Your task to perform on an android device: turn off airplane mode Image 0: 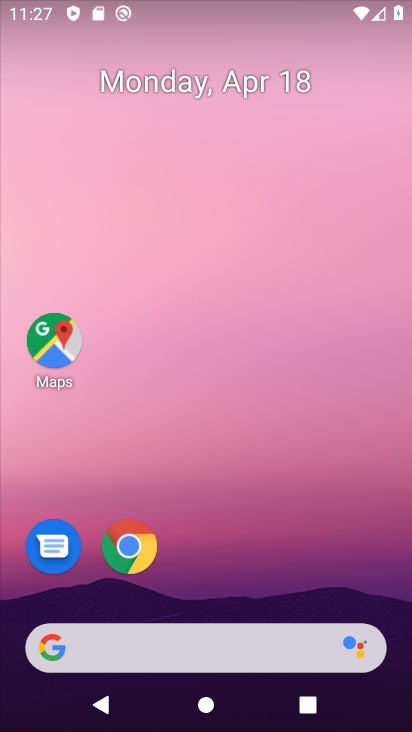
Step 0: drag from (210, 592) to (213, 175)
Your task to perform on an android device: turn off airplane mode Image 1: 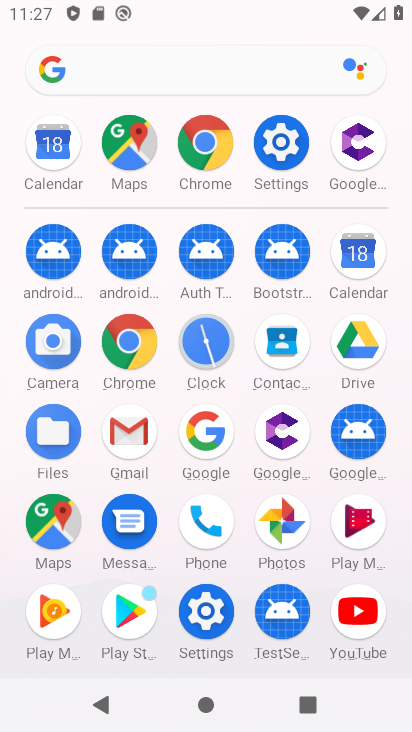
Step 1: click (284, 148)
Your task to perform on an android device: turn off airplane mode Image 2: 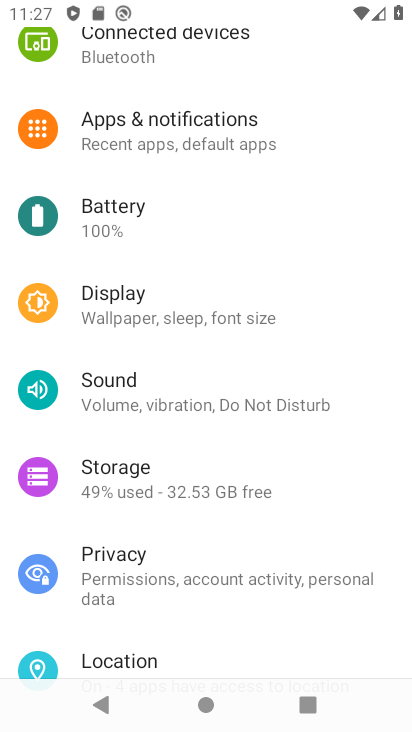
Step 2: drag from (236, 144) to (405, 327)
Your task to perform on an android device: turn off airplane mode Image 3: 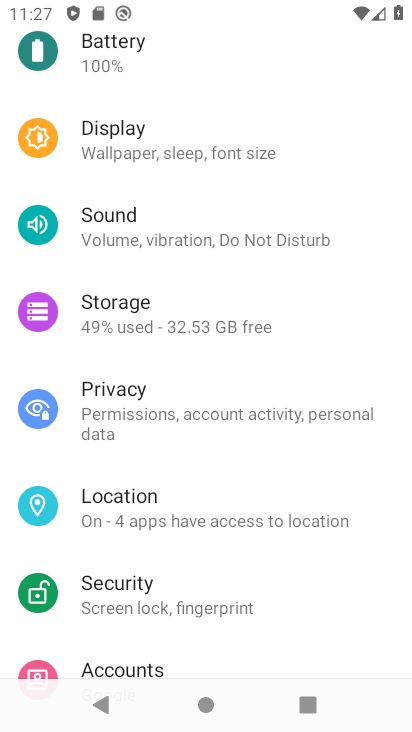
Step 3: drag from (263, 207) to (352, 492)
Your task to perform on an android device: turn off airplane mode Image 4: 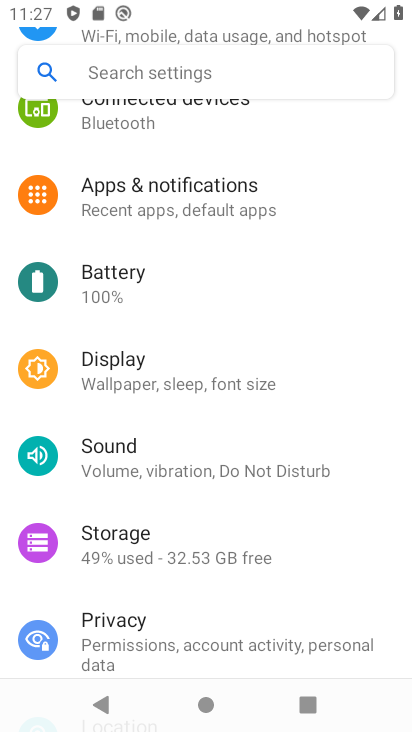
Step 4: drag from (221, 136) to (373, 656)
Your task to perform on an android device: turn off airplane mode Image 5: 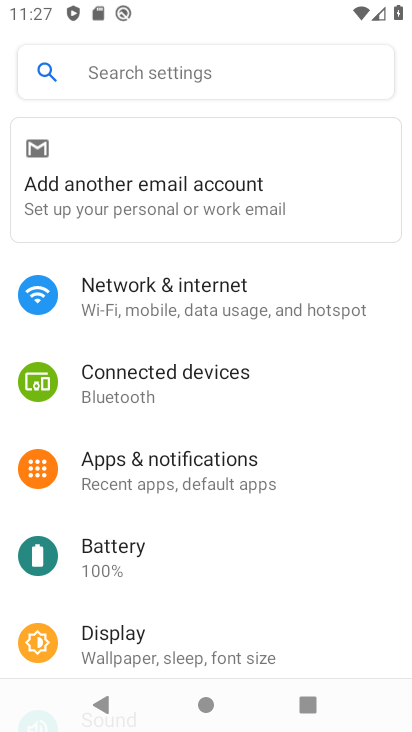
Step 5: click (236, 298)
Your task to perform on an android device: turn off airplane mode Image 6: 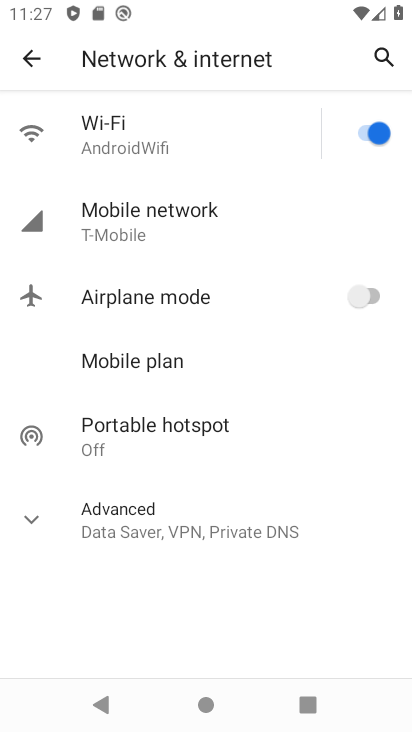
Step 6: task complete